Your task to perform on an android device: Go to privacy settings Image 0: 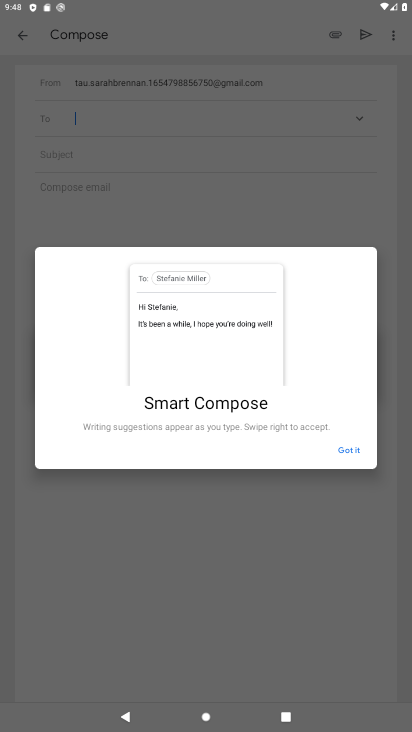
Step 0: press home button
Your task to perform on an android device: Go to privacy settings Image 1: 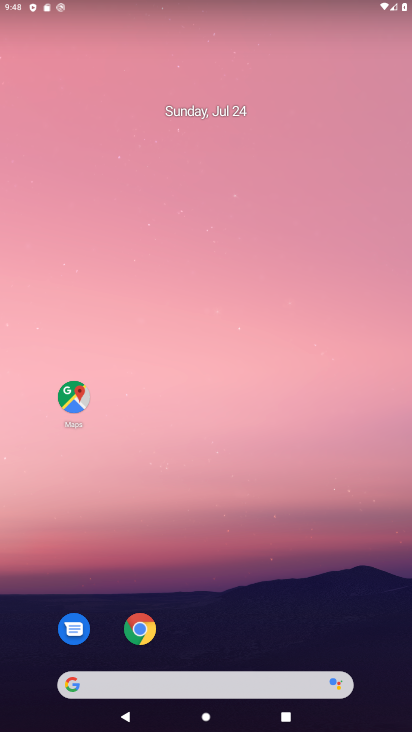
Step 1: drag from (190, 686) to (352, 107)
Your task to perform on an android device: Go to privacy settings Image 2: 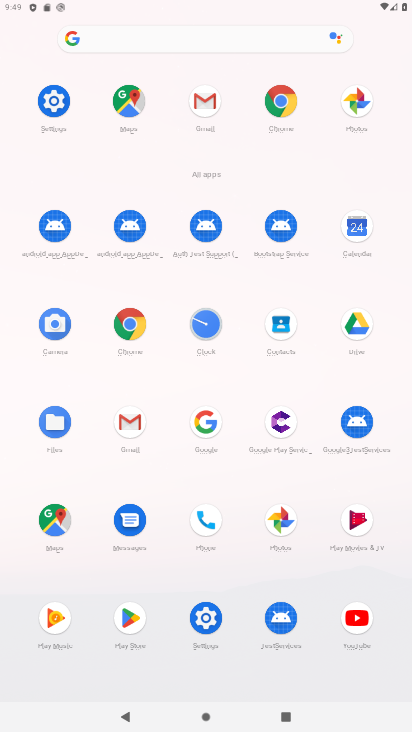
Step 2: click (52, 101)
Your task to perform on an android device: Go to privacy settings Image 3: 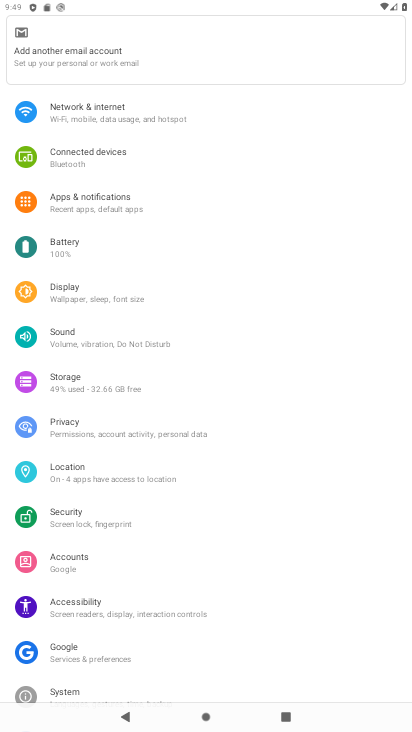
Step 3: click (72, 430)
Your task to perform on an android device: Go to privacy settings Image 4: 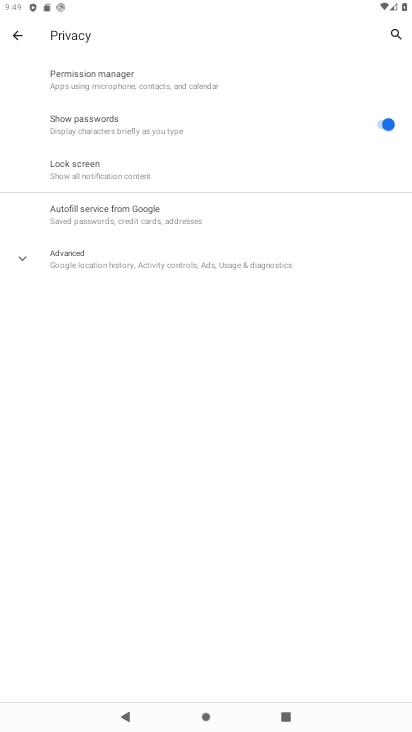
Step 4: task complete